Your task to perform on an android device: check out phone information Image 0: 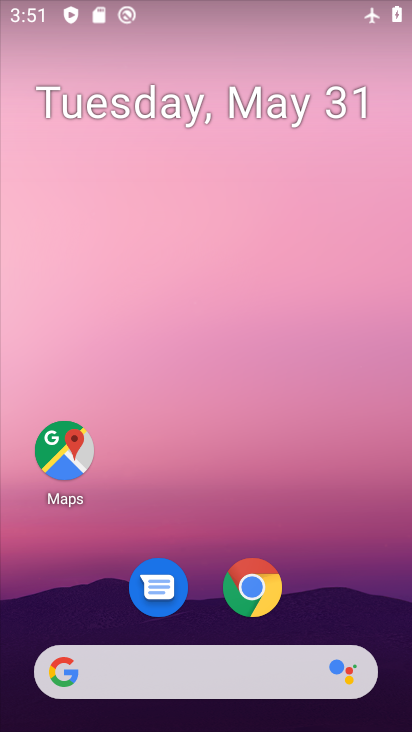
Step 0: drag from (64, 632) to (230, 150)
Your task to perform on an android device: check out phone information Image 1: 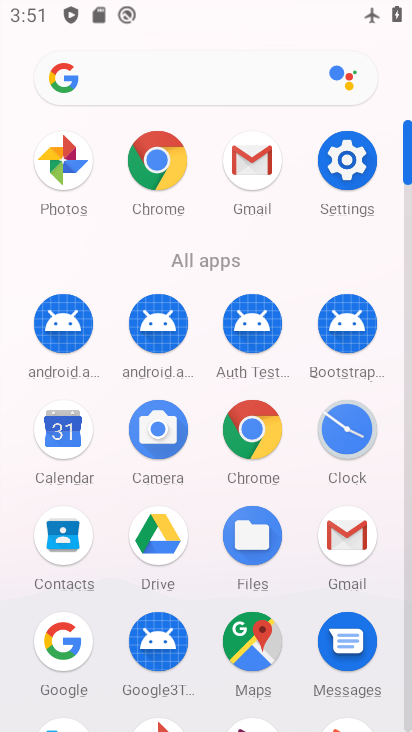
Step 1: drag from (141, 546) to (255, 215)
Your task to perform on an android device: check out phone information Image 2: 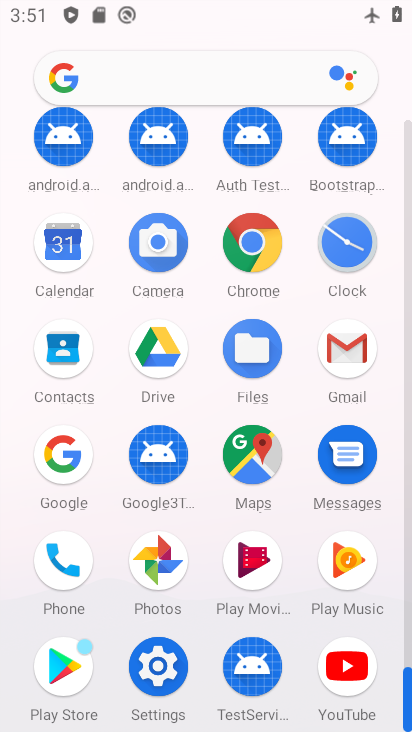
Step 2: click (160, 680)
Your task to perform on an android device: check out phone information Image 3: 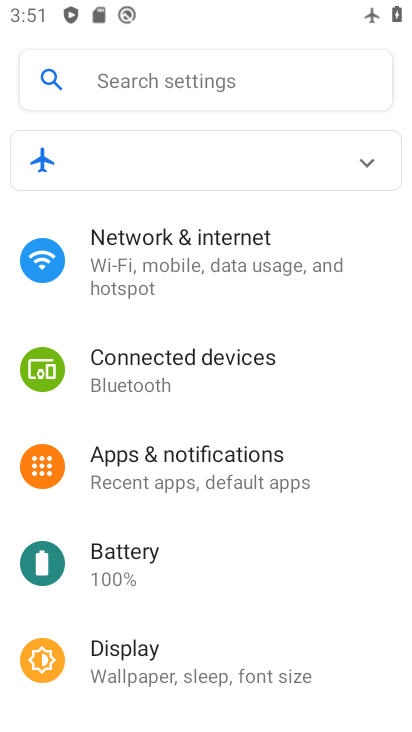
Step 3: drag from (227, 604) to (381, 152)
Your task to perform on an android device: check out phone information Image 4: 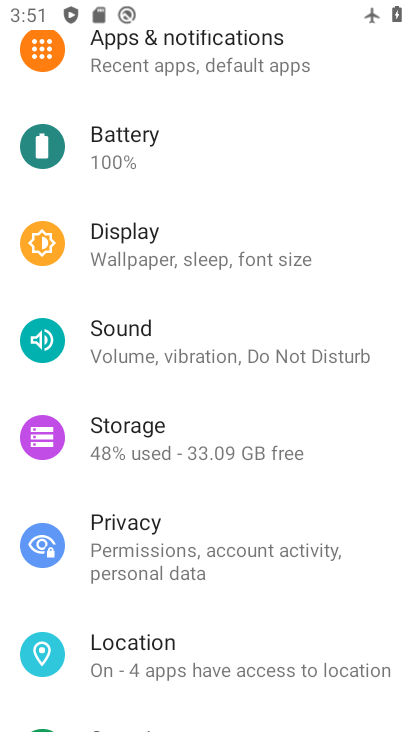
Step 4: drag from (207, 626) to (332, 202)
Your task to perform on an android device: check out phone information Image 5: 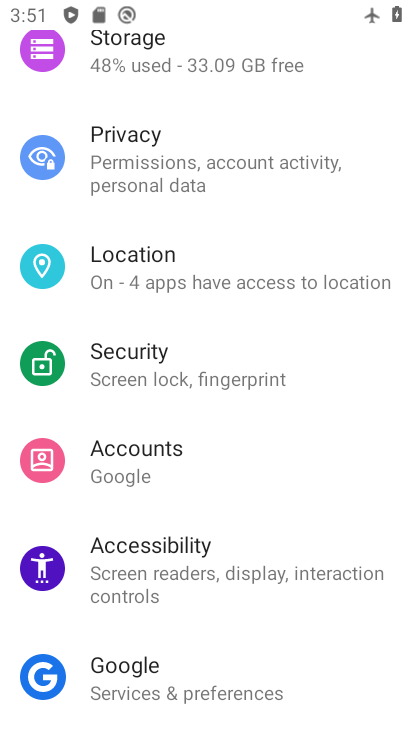
Step 5: drag from (164, 686) to (327, 190)
Your task to perform on an android device: check out phone information Image 6: 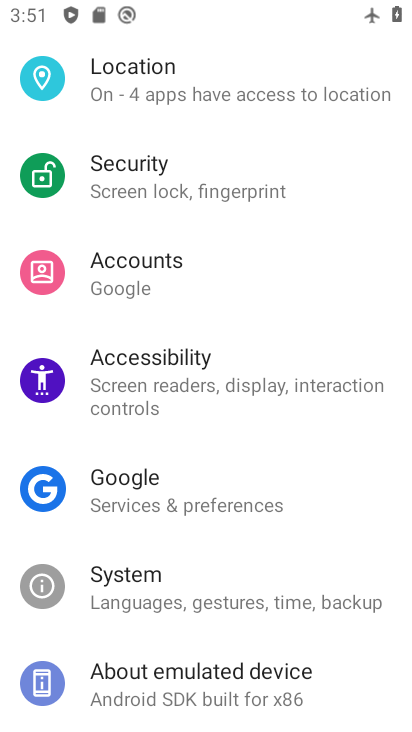
Step 6: click (192, 688)
Your task to perform on an android device: check out phone information Image 7: 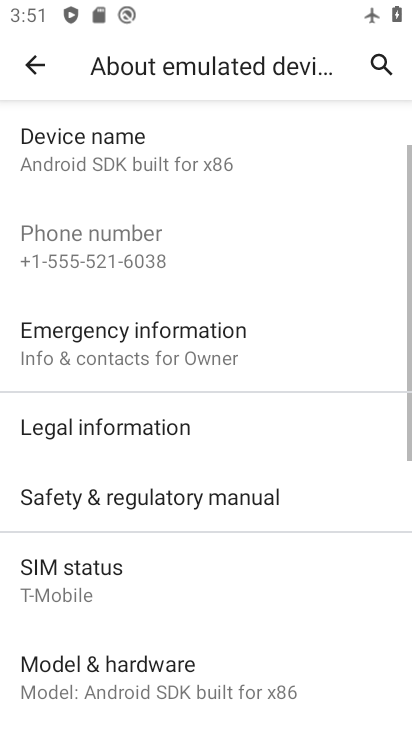
Step 7: click (233, 363)
Your task to perform on an android device: check out phone information Image 8: 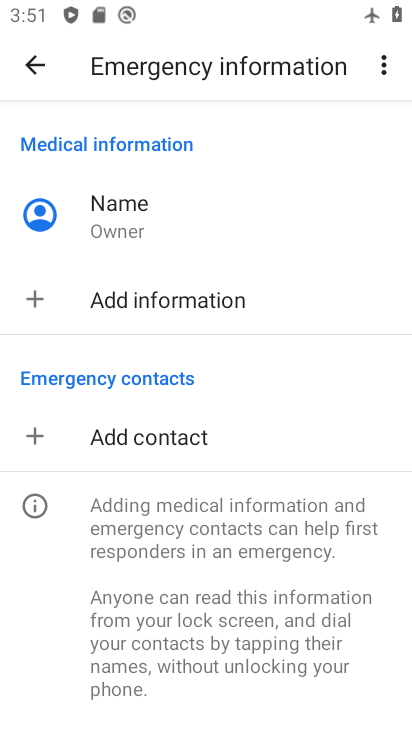
Step 8: task complete